Your task to perform on an android device: Go to CNN.com Image 0: 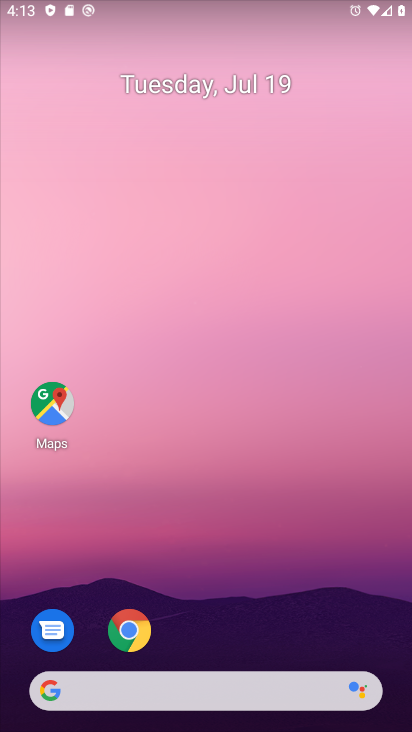
Step 0: click (123, 630)
Your task to perform on an android device: Go to CNN.com Image 1: 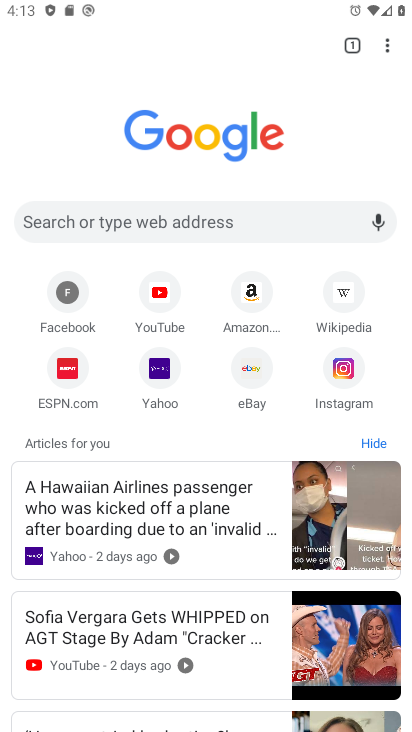
Step 1: click (206, 206)
Your task to perform on an android device: Go to CNN.com Image 2: 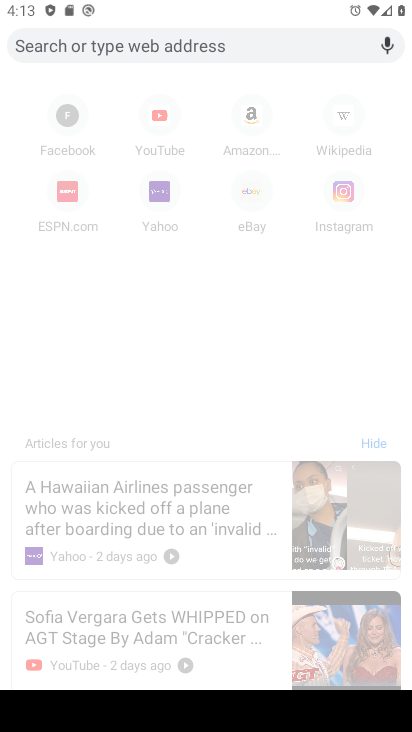
Step 2: type "www.cnn.com"
Your task to perform on an android device: Go to CNN.com Image 3: 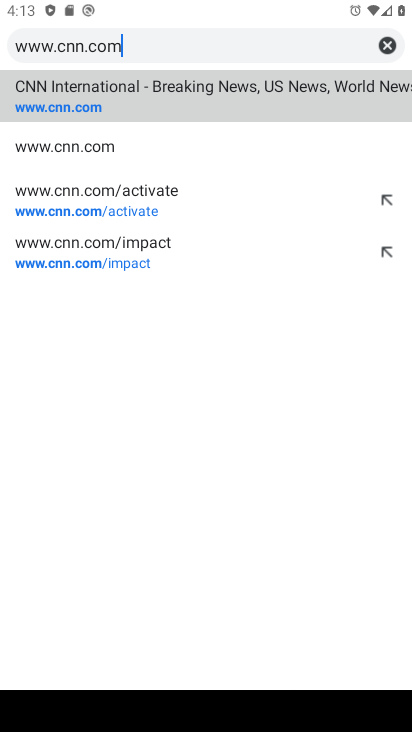
Step 3: click (59, 107)
Your task to perform on an android device: Go to CNN.com Image 4: 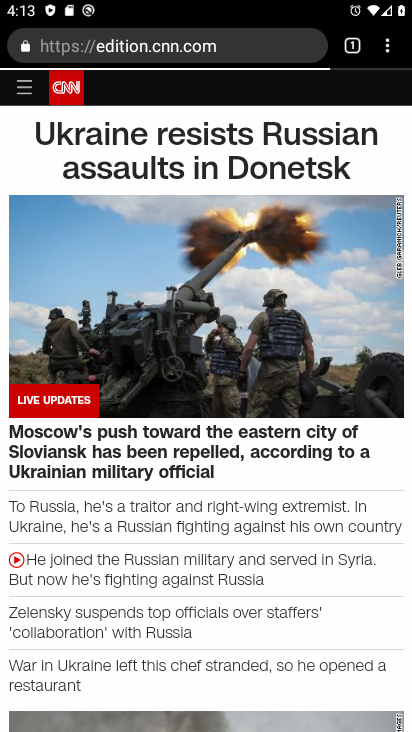
Step 4: task complete